Your task to perform on an android device: Is it going to rain today? Image 0: 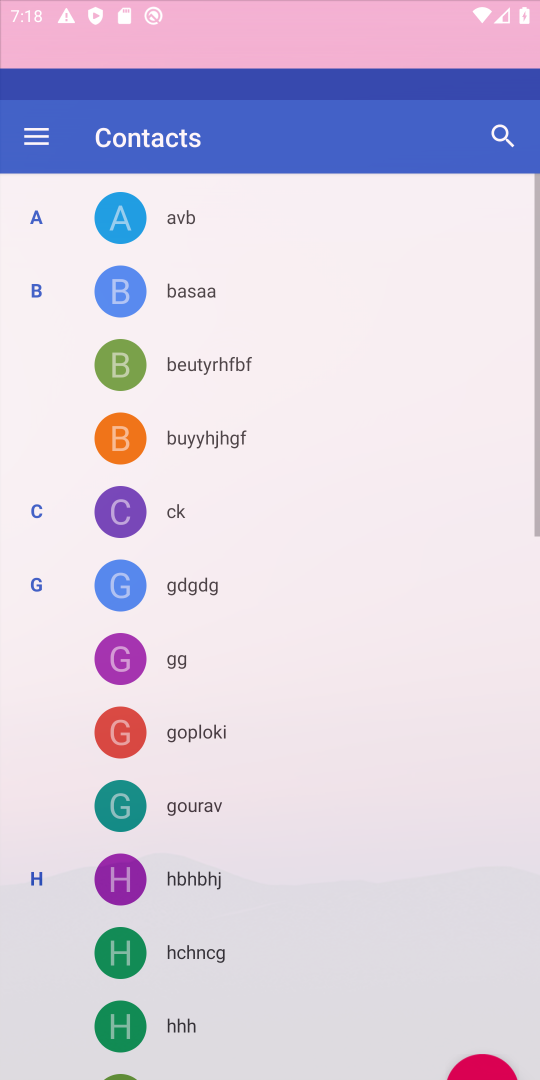
Step 0: press home button
Your task to perform on an android device: Is it going to rain today? Image 1: 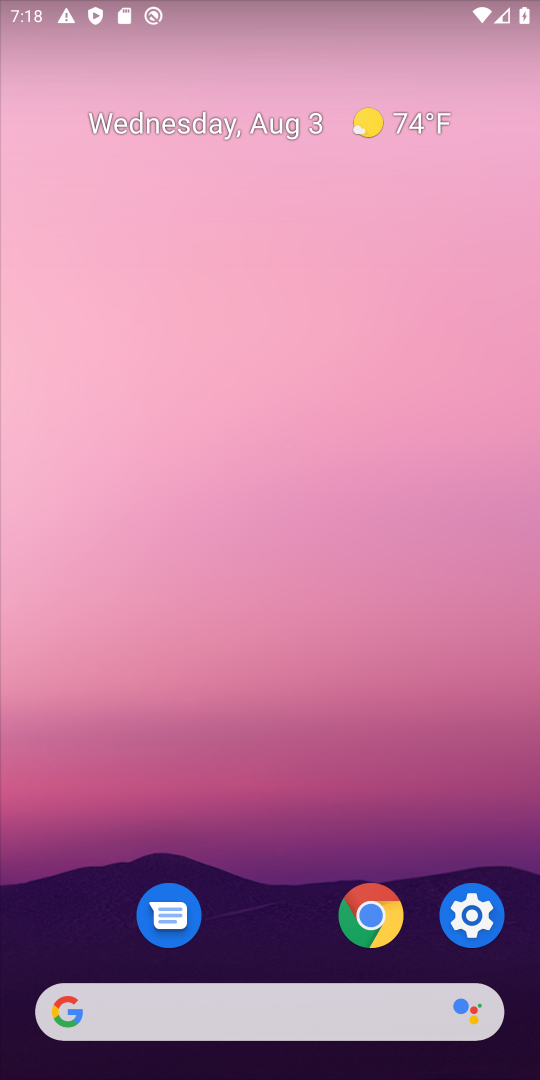
Step 1: click (277, 1020)
Your task to perform on an android device: Is it going to rain today? Image 2: 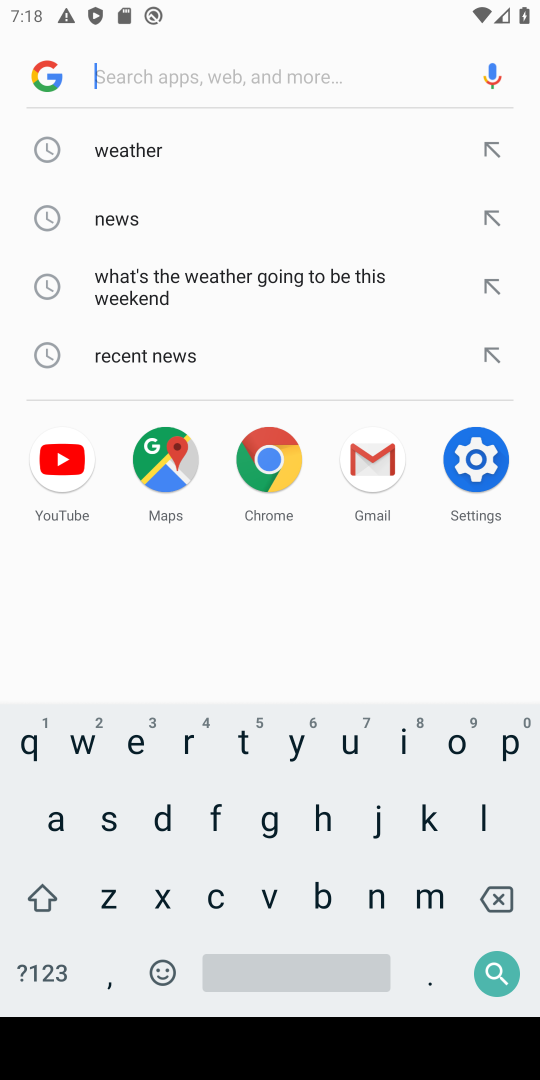
Step 2: click (409, 740)
Your task to perform on an android device: Is it going to rain today? Image 3: 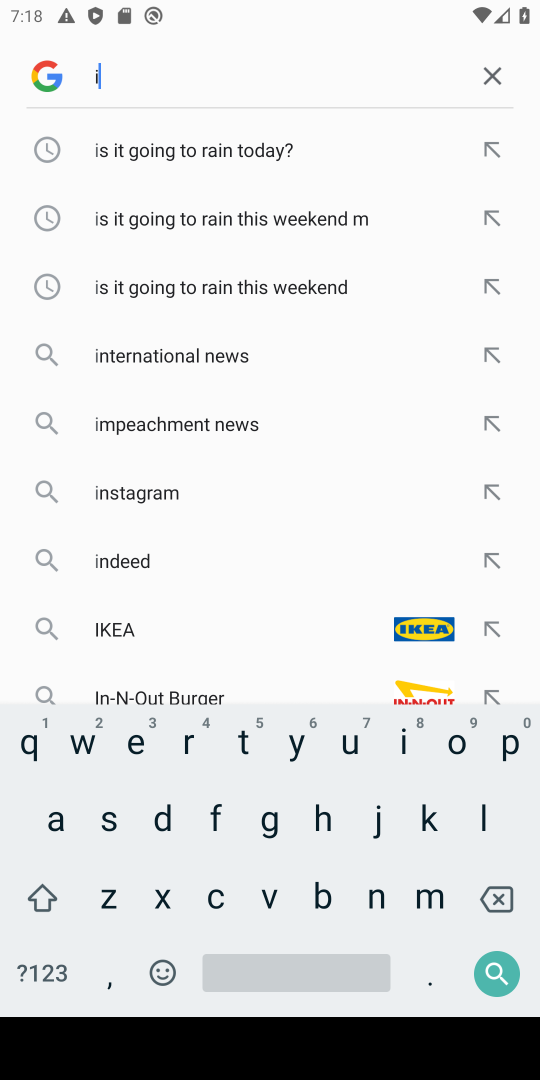
Step 3: click (209, 153)
Your task to perform on an android device: Is it going to rain today? Image 4: 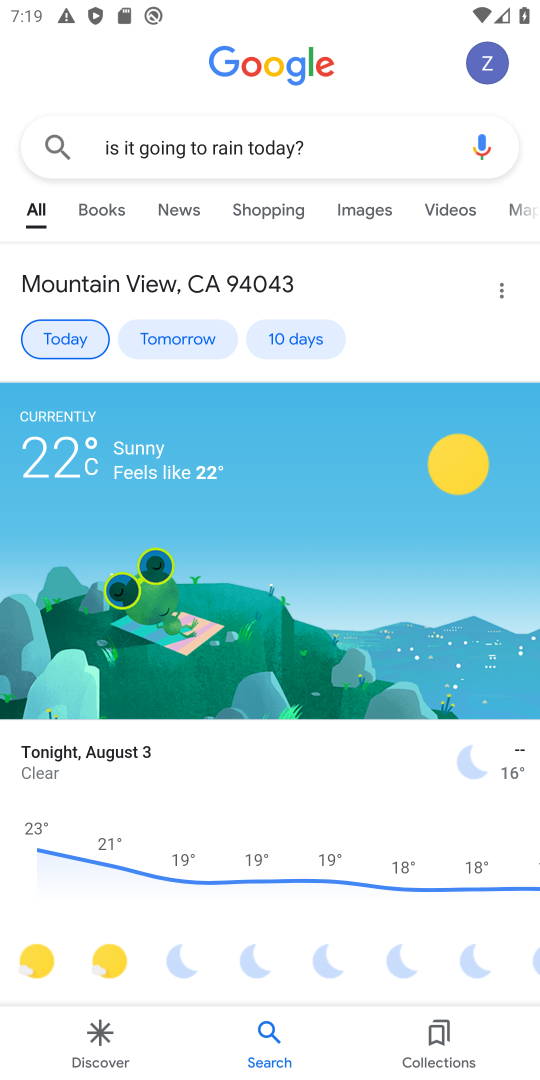
Step 4: task complete